Your task to perform on an android device: Open Yahoo.com Image 0: 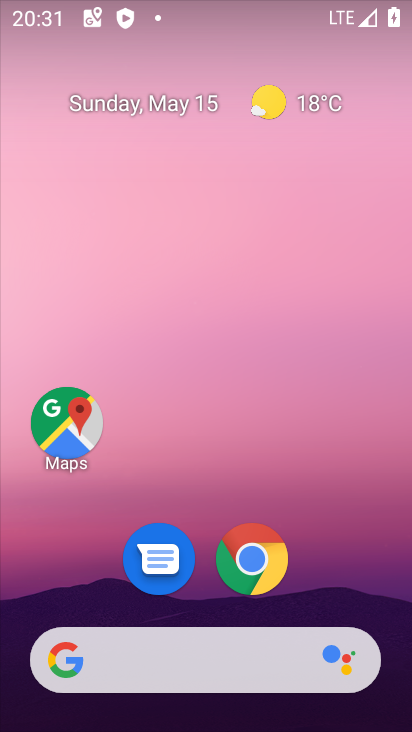
Step 0: click (246, 566)
Your task to perform on an android device: Open Yahoo.com Image 1: 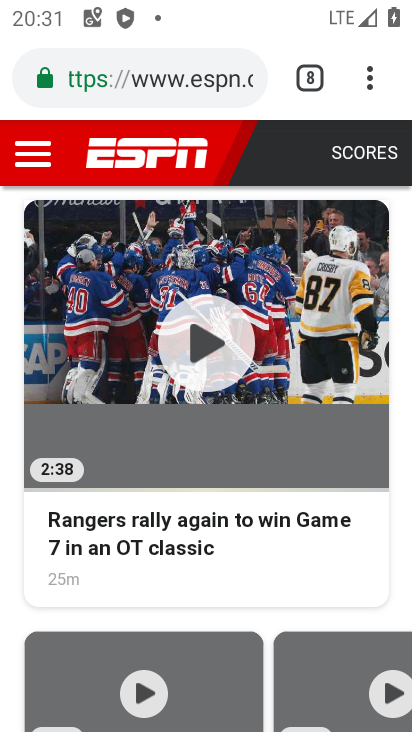
Step 1: click (371, 71)
Your task to perform on an android device: Open Yahoo.com Image 2: 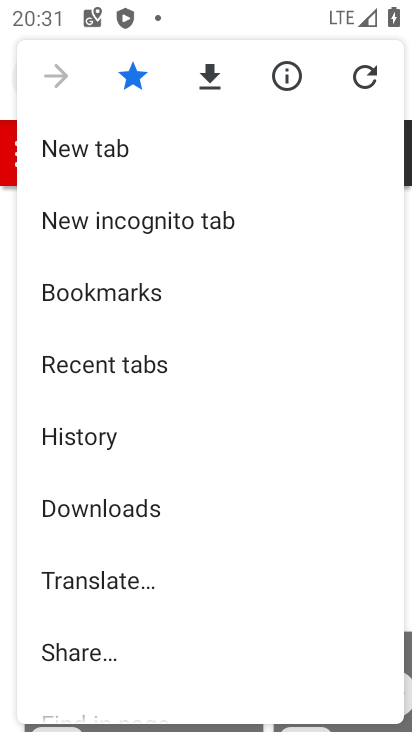
Step 2: click (110, 145)
Your task to perform on an android device: Open Yahoo.com Image 3: 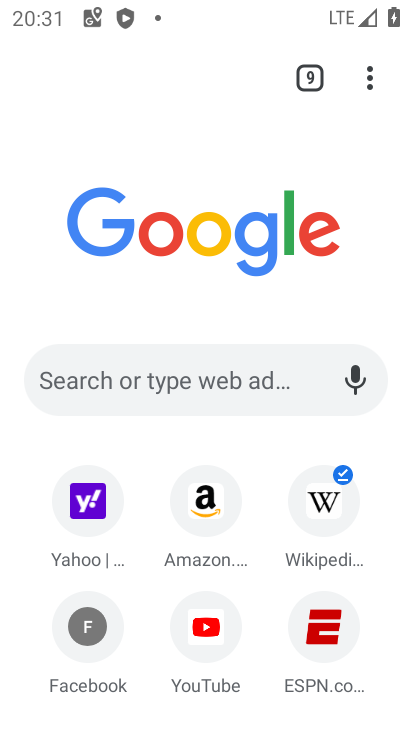
Step 3: click (89, 484)
Your task to perform on an android device: Open Yahoo.com Image 4: 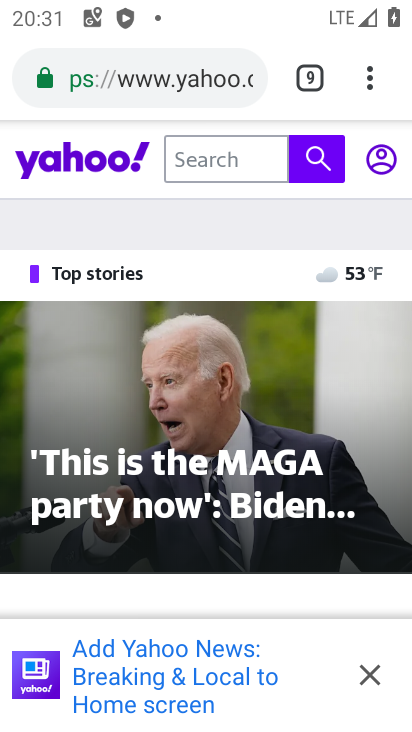
Step 4: task complete